Your task to perform on an android device: Go to network settings Image 0: 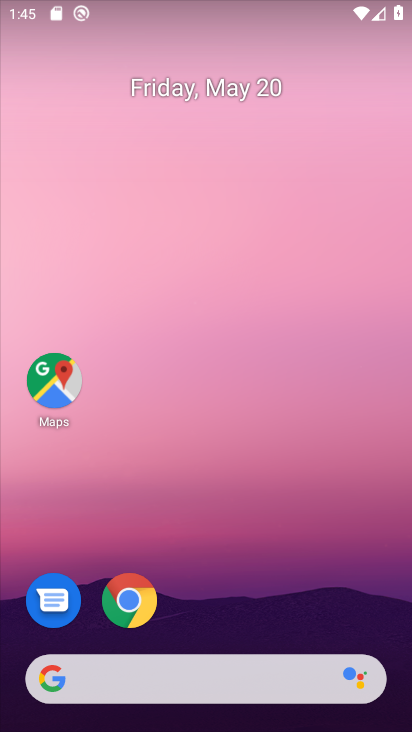
Step 0: drag from (248, 623) to (321, 6)
Your task to perform on an android device: Go to network settings Image 1: 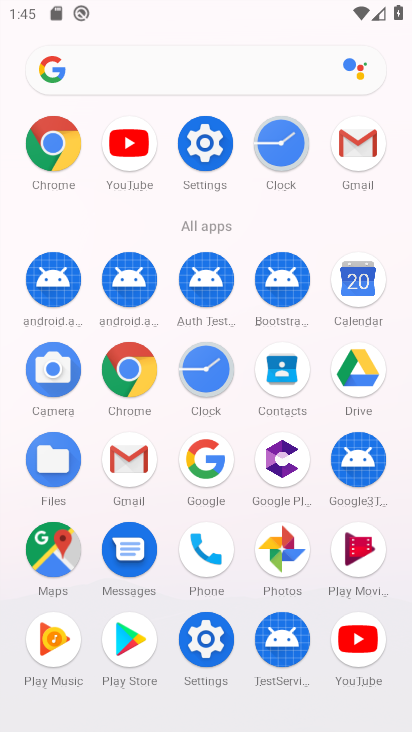
Step 1: click (194, 645)
Your task to perform on an android device: Go to network settings Image 2: 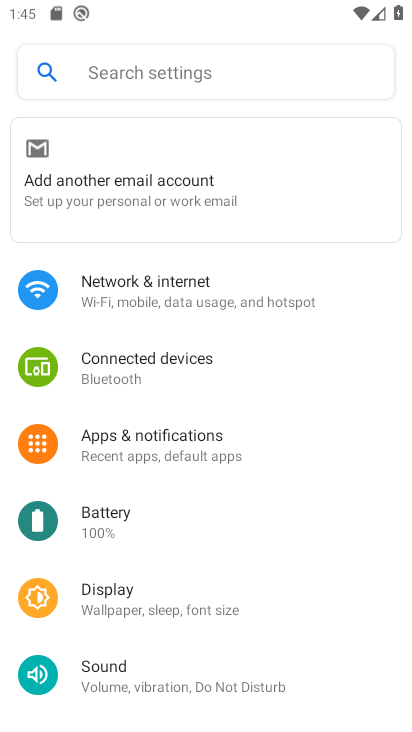
Step 2: click (181, 305)
Your task to perform on an android device: Go to network settings Image 3: 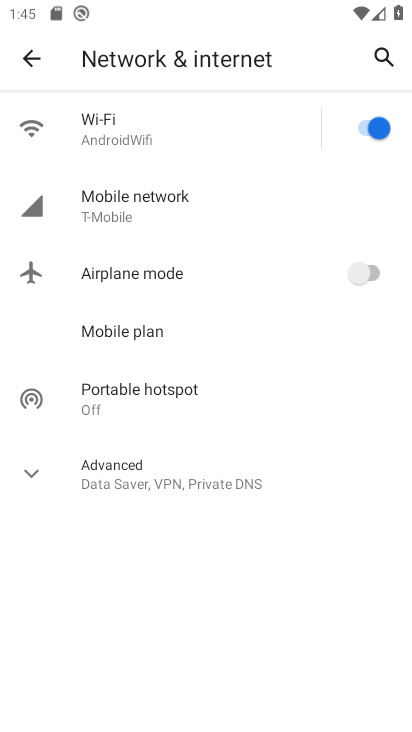
Step 3: task complete